Your task to perform on an android device: make emails show in primary in the gmail app Image 0: 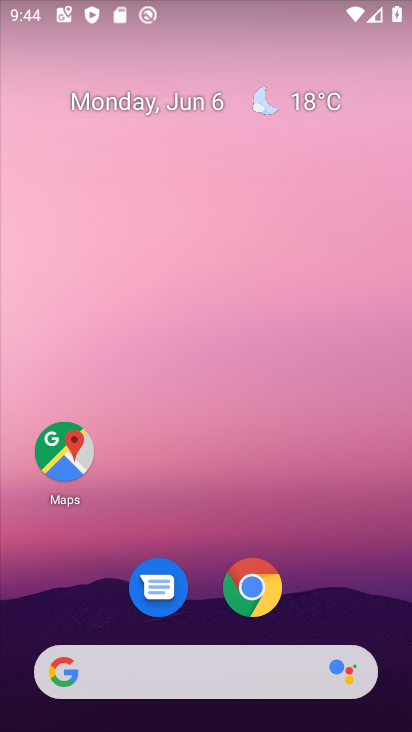
Step 0: drag from (343, 533) to (332, 116)
Your task to perform on an android device: make emails show in primary in the gmail app Image 1: 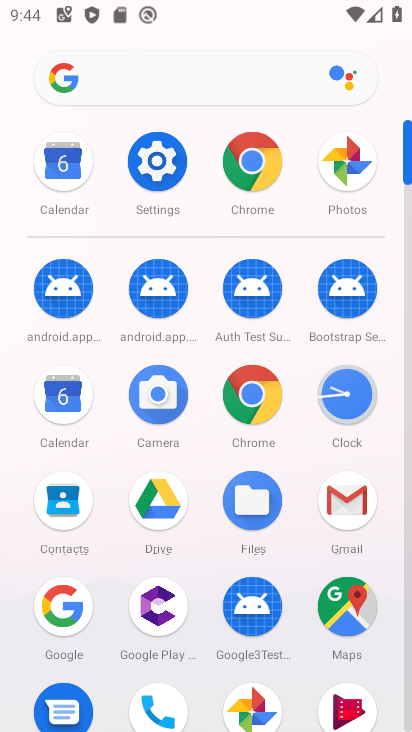
Step 1: click (343, 500)
Your task to perform on an android device: make emails show in primary in the gmail app Image 2: 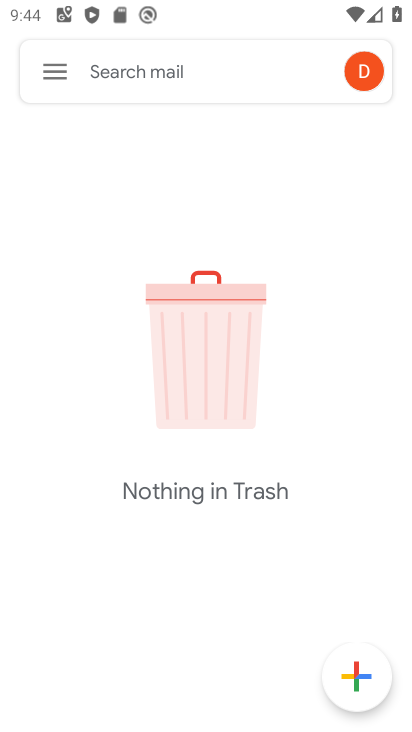
Step 2: click (55, 76)
Your task to perform on an android device: make emails show in primary in the gmail app Image 3: 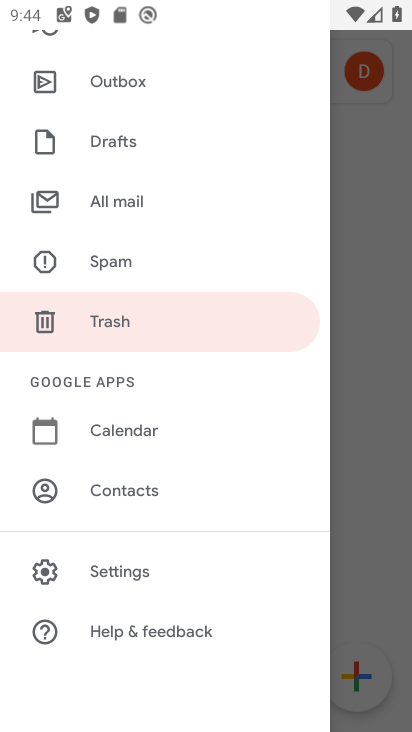
Step 3: click (132, 593)
Your task to perform on an android device: make emails show in primary in the gmail app Image 4: 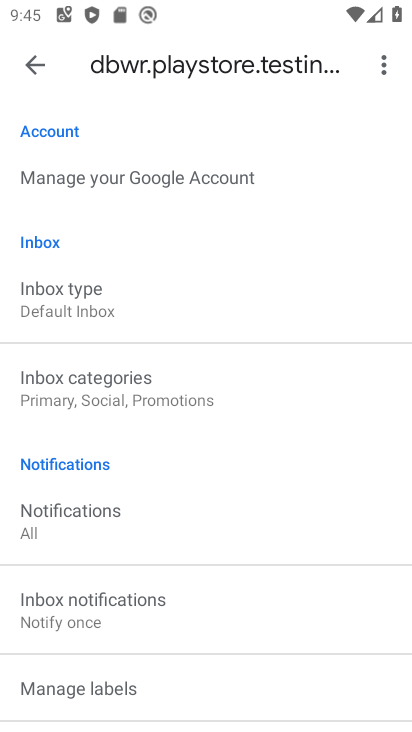
Step 4: click (134, 392)
Your task to perform on an android device: make emails show in primary in the gmail app Image 5: 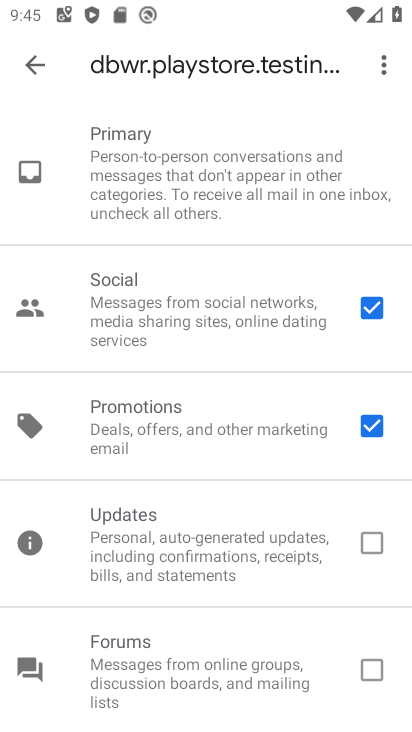
Step 5: task complete